Your task to perform on an android device: Search for sushi restaurants on Maps Image 0: 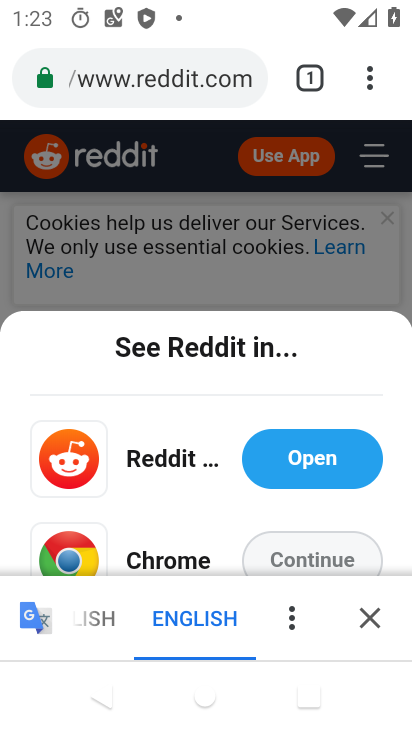
Step 0: press home button
Your task to perform on an android device: Search for sushi restaurants on Maps Image 1: 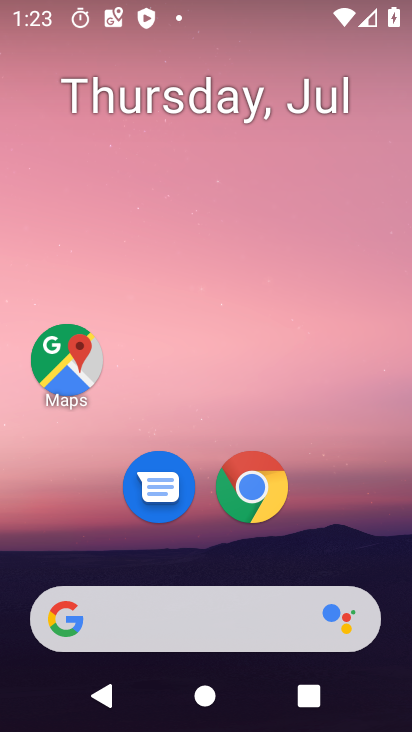
Step 1: drag from (307, 555) to (407, 25)
Your task to perform on an android device: Search for sushi restaurants on Maps Image 2: 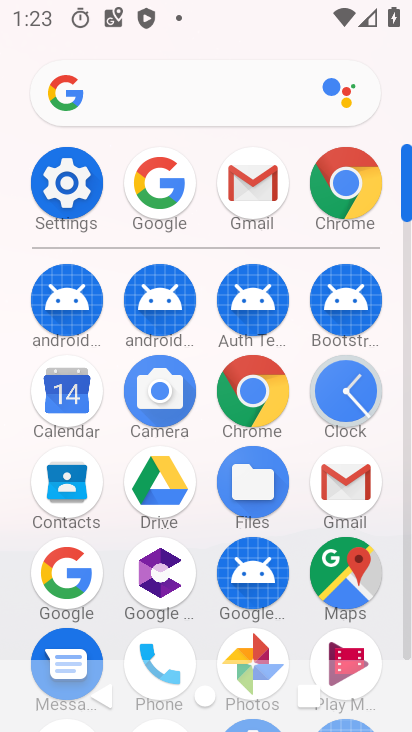
Step 2: click (360, 584)
Your task to perform on an android device: Search for sushi restaurants on Maps Image 3: 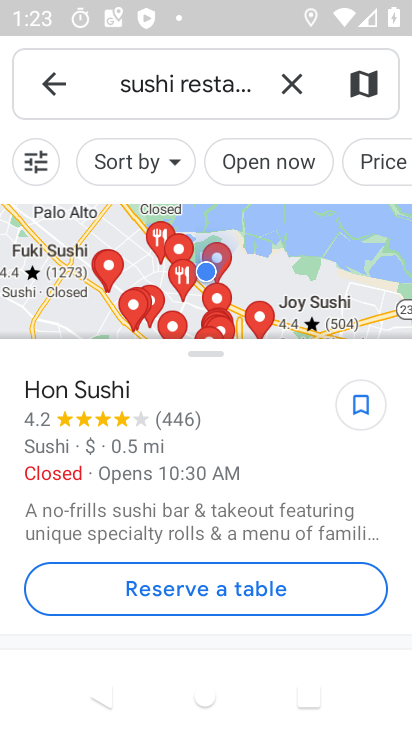
Step 3: task complete